Your task to perform on an android device: Open settings on Google Maps Image 0: 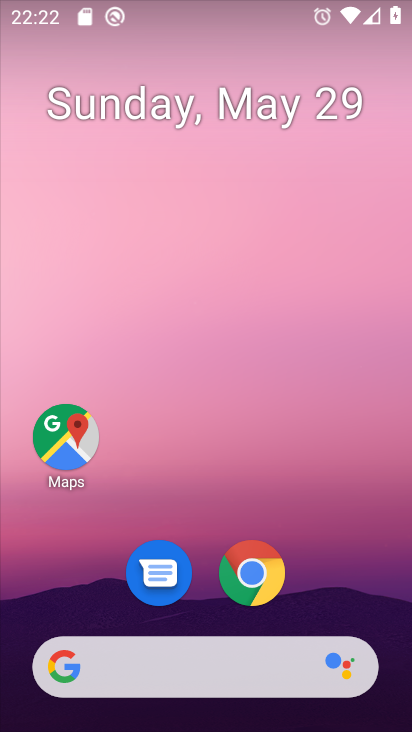
Step 0: click (264, 569)
Your task to perform on an android device: Open settings on Google Maps Image 1: 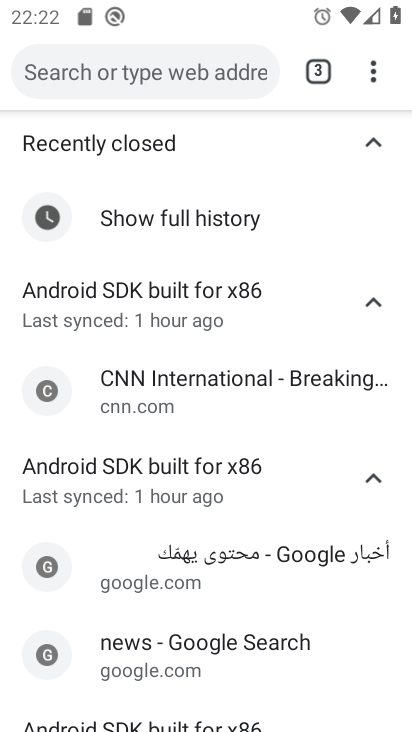
Step 1: click (366, 73)
Your task to perform on an android device: Open settings on Google Maps Image 2: 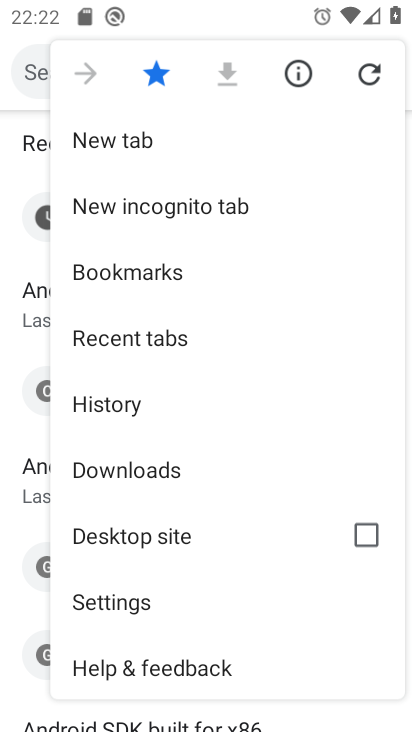
Step 2: click (147, 604)
Your task to perform on an android device: Open settings on Google Maps Image 3: 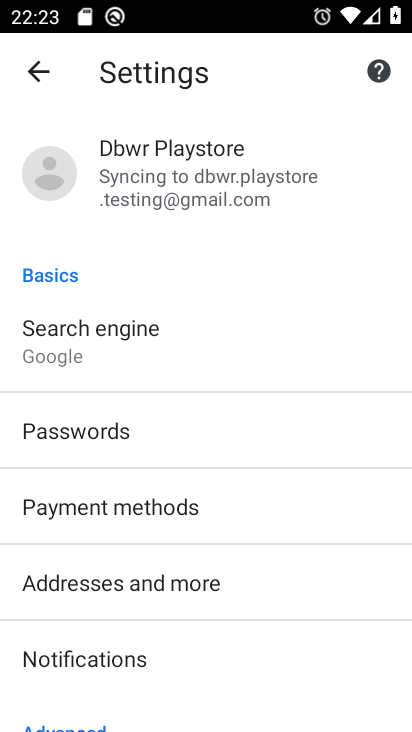
Step 3: task complete